Your task to perform on an android device: Turn off the flashlight Image 0: 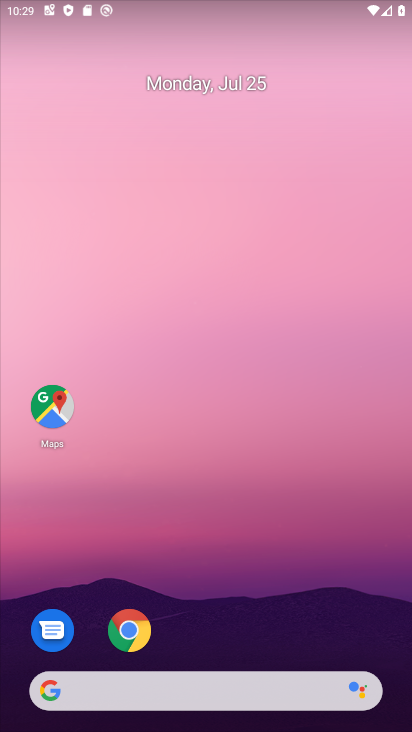
Step 0: press home button
Your task to perform on an android device: Turn off the flashlight Image 1: 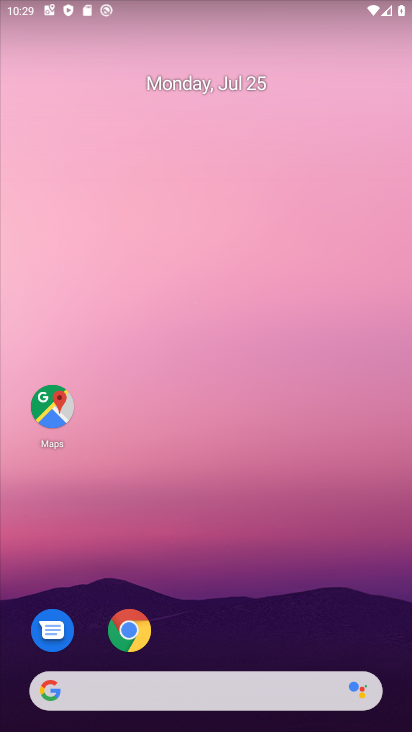
Step 1: drag from (242, 0) to (241, 454)
Your task to perform on an android device: Turn off the flashlight Image 2: 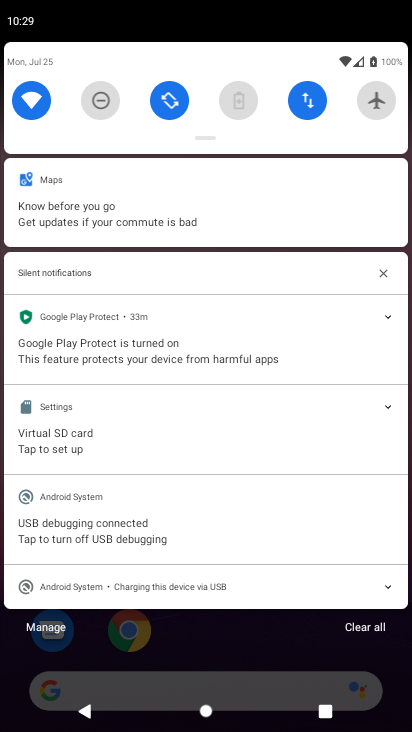
Step 2: drag from (198, 60) to (200, 417)
Your task to perform on an android device: Turn off the flashlight Image 3: 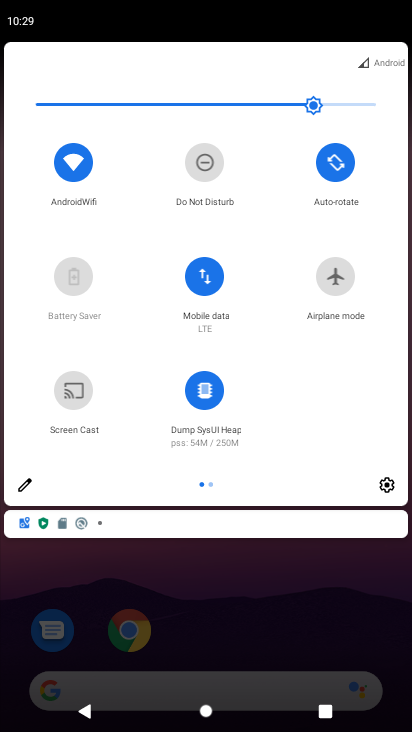
Step 3: click (24, 477)
Your task to perform on an android device: Turn off the flashlight Image 4: 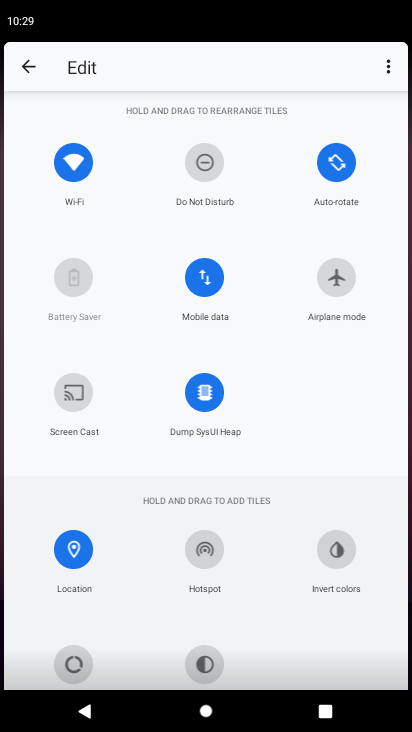
Step 4: task complete